Your task to perform on an android device: Search for Mexican restaurants on Maps Image 0: 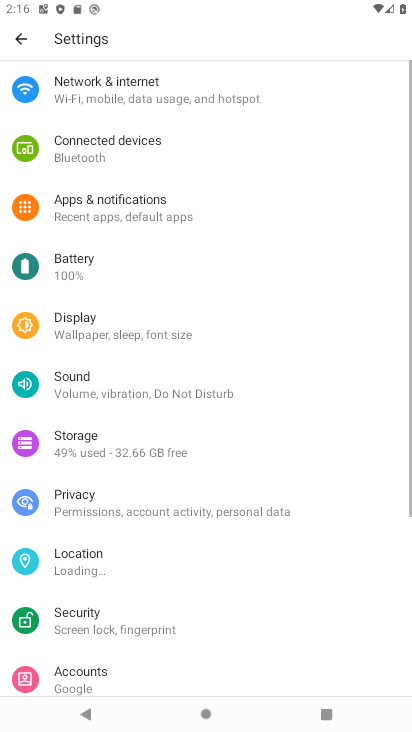
Step 0: press home button
Your task to perform on an android device: Search for Mexican restaurants on Maps Image 1: 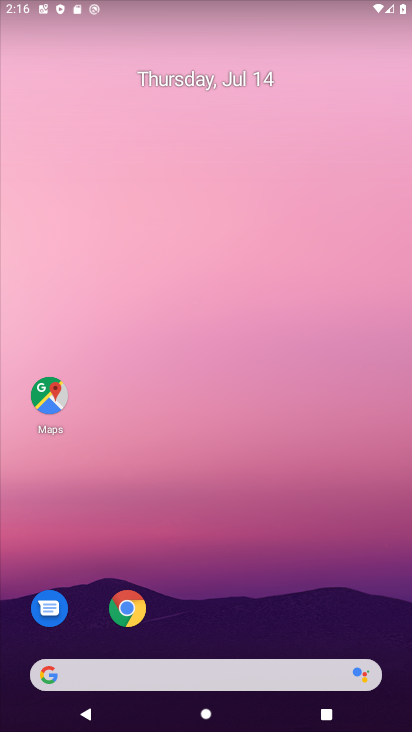
Step 1: click (39, 401)
Your task to perform on an android device: Search for Mexican restaurants on Maps Image 2: 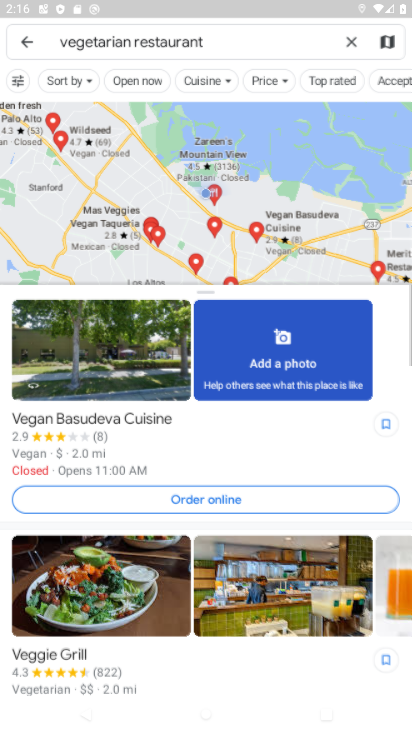
Step 2: click (350, 42)
Your task to perform on an android device: Search for Mexican restaurants on Maps Image 3: 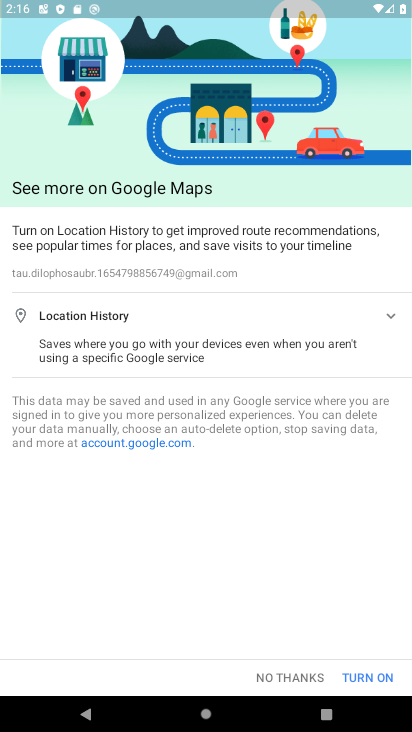
Step 3: click (294, 681)
Your task to perform on an android device: Search for Mexican restaurants on Maps Image 4: 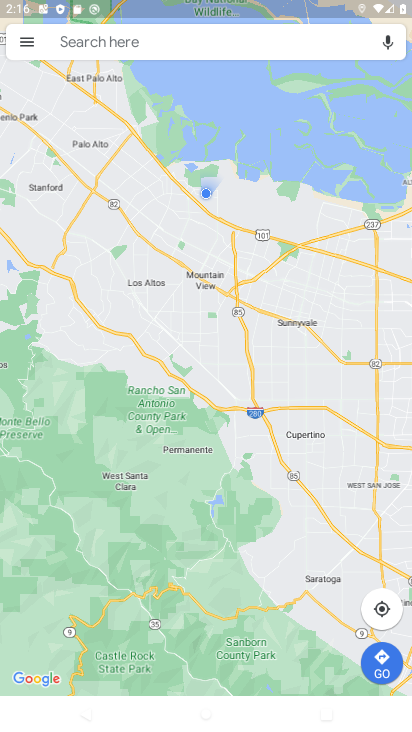
Step 4: click (163, 38)
Your task to perform on an android device: Search for Mexican restaurants on Maps Image 5: 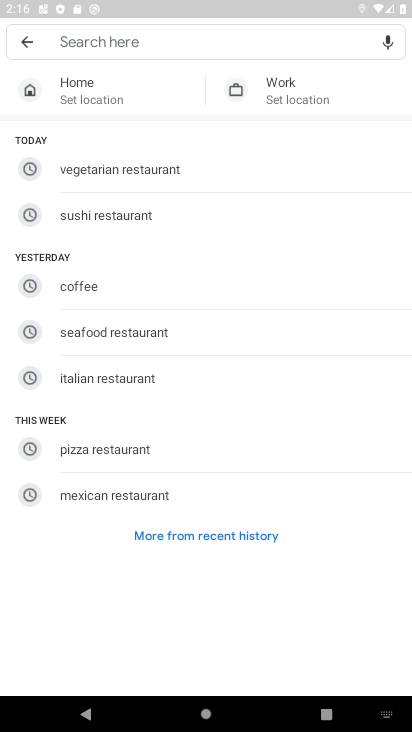
Step 5: click (153, 485)
Your task to perform on an android device: Search for Mexican restaurants on Maps Image 6: 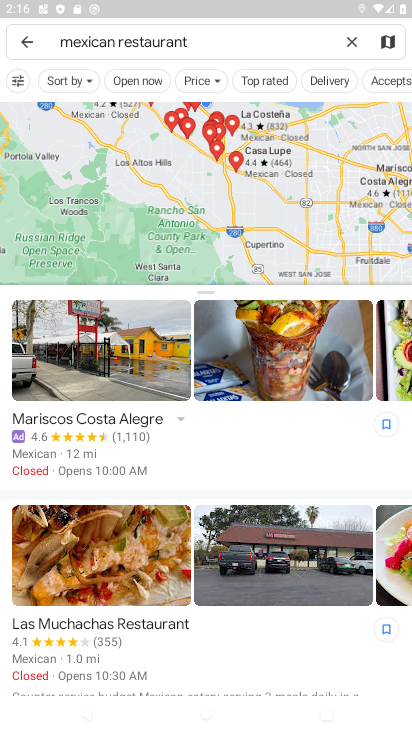
Step 6: task complete